Your task to perform on an android device: What's on my calendar tomorrow? Image 0: 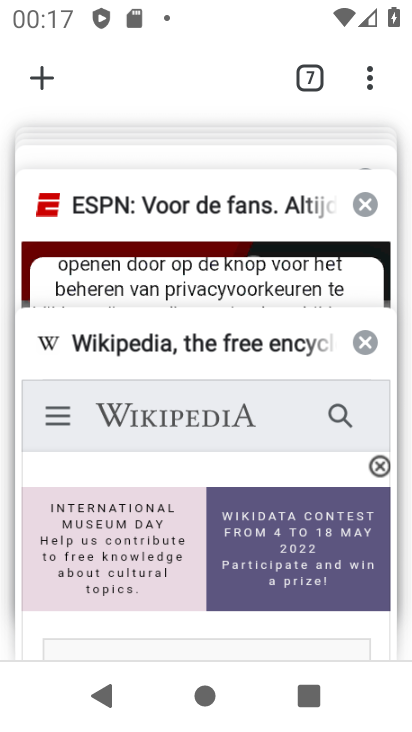
Step 0: press home button
Your task to perform on an android device: What's on my calendar tomorrow? Image 1: 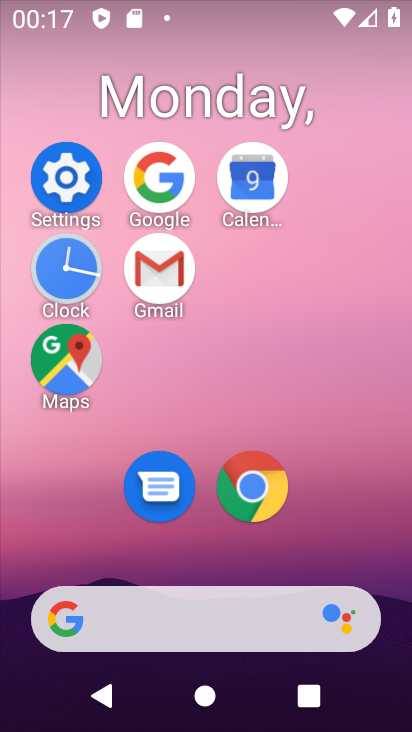
Step 1: click (248, 195)
Your task to perform on an android device: What's on my calendar tomorrow? Image 2: 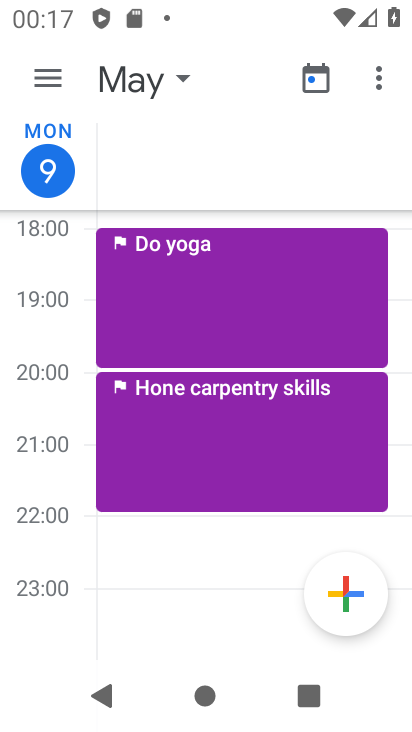
Step 2: task complete